Your task to perform on an android device: turn on bluetooth scan Image 0: 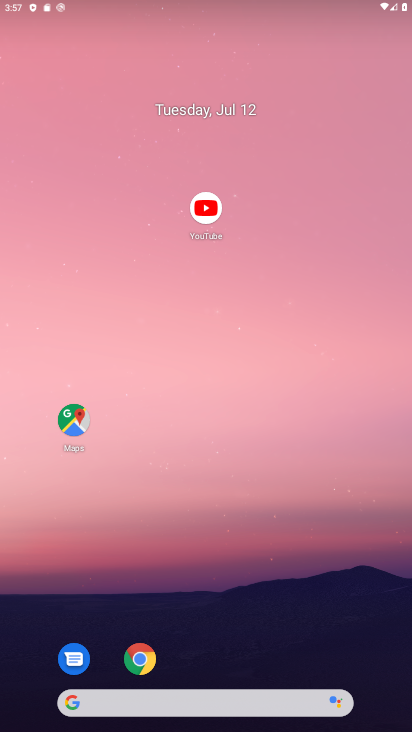
Step 0: drag from (271, 704) to (253, 33)
Your task to perform on an android device: turn on bluetooth scan Image 1: 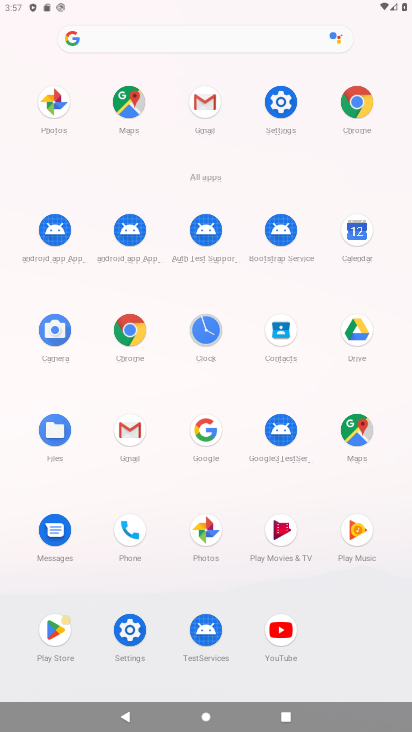
Step 1: click (282, 95)
Your task to perform on an android device: turn on bluetooth scan Image 2: 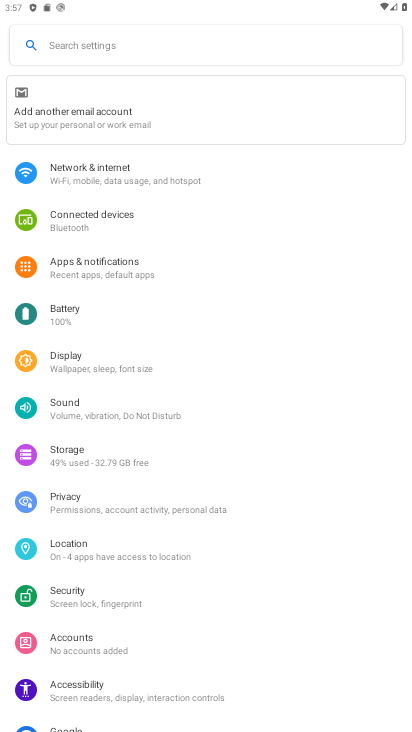
Step 2: click (88, 540)
Your task to perform on an android device: turn on bluetooth scan Image 3: 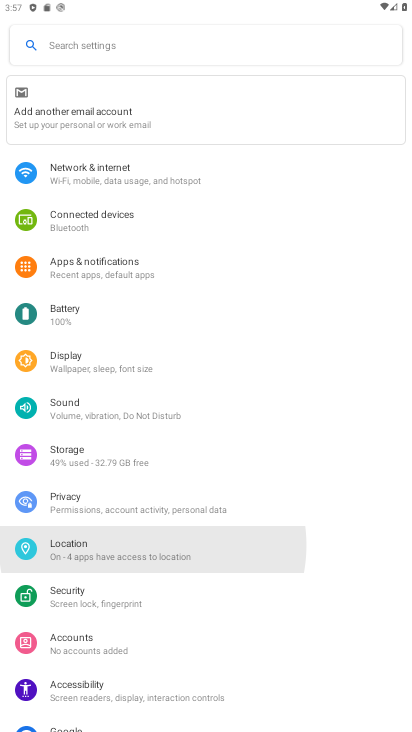
Step 3: click (88, 542)
Your task to perform on an android device: turn on bluetooth scan Image 4: 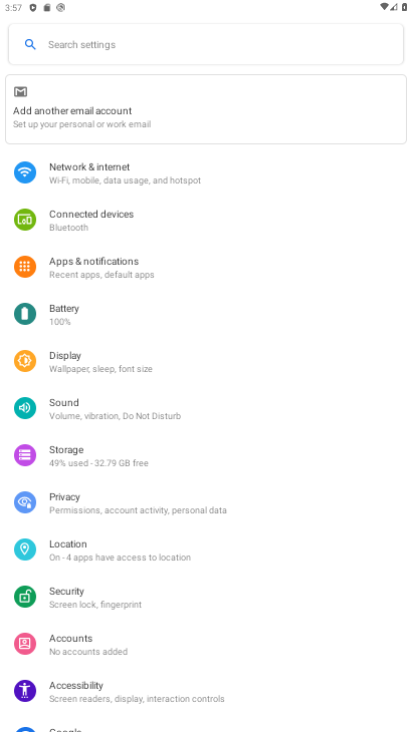
Step 4: click (88, 542)
Your task to perform on an android device: turn on bluetooth scan Image 5: 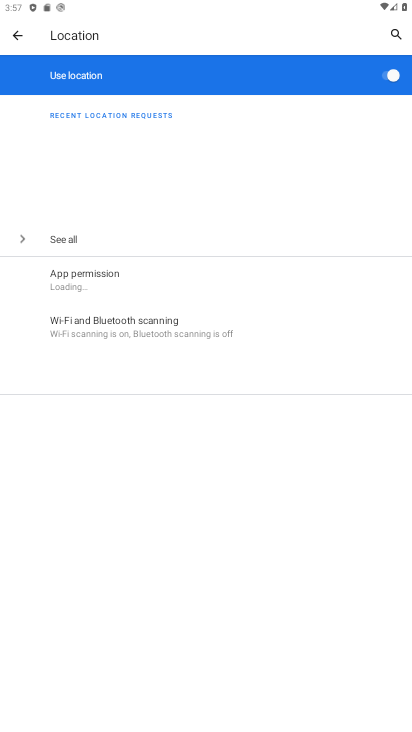
Step 5: click (89, 543)
Your task to perform on an android device: turn on bluetooth scan Image 6: 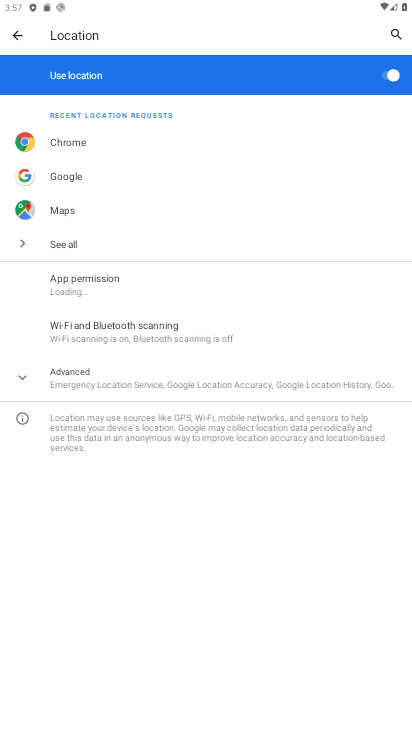
Step 6: click (91, 325)
Your task to perform on an android device: turn on bluetooth scan Image 7: 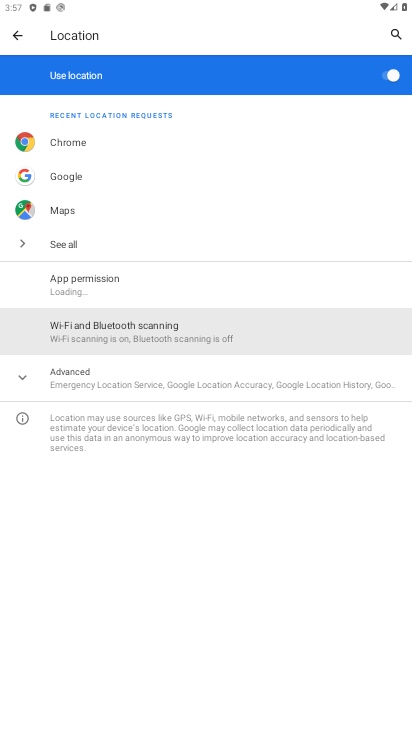
Step 7: click (91, 325)
Your task to perform on an android device: turn on bluetooth scan Image 8: 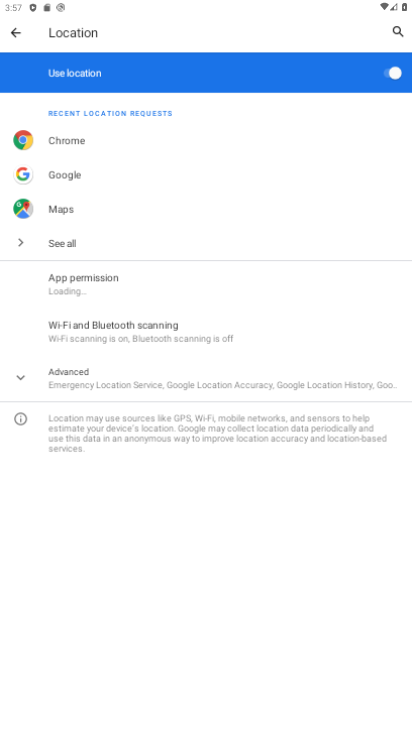
Step 8: click (92, 325)
Your task to perform on an android device: turn on bluetooth scan Image 9: 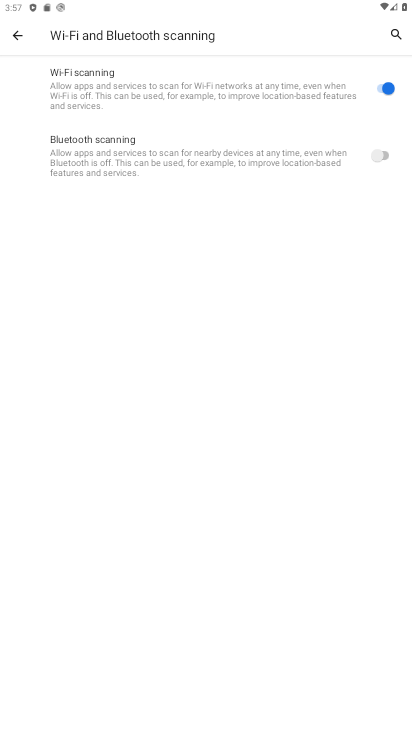
Step 9: click (382, 153)
Your task to perform on an android device: turn on bluetooth scan Image 10: 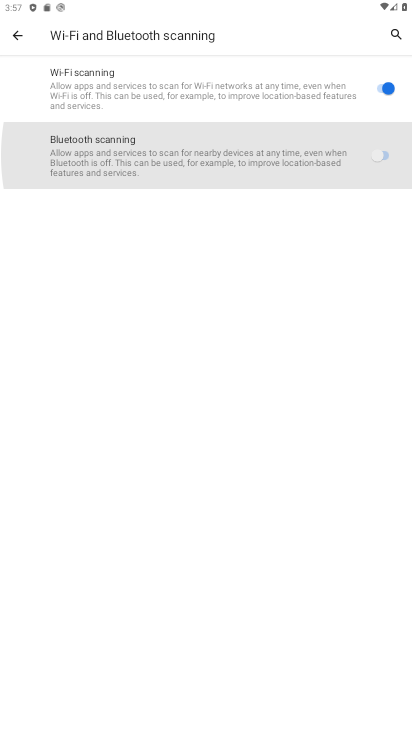
Step 10: click (381, 153)
Your task to perform on an android device: turn on bluetooth scan Image 11: 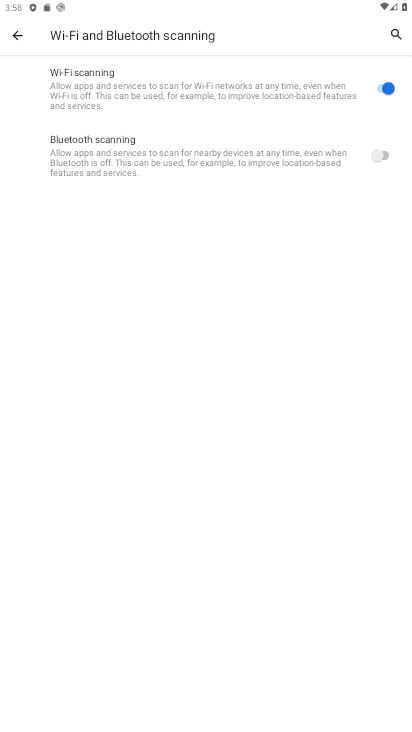
Step 11: click (384, 146)
Your task to perform on an android device: turn on bluetooth scan Image 12: 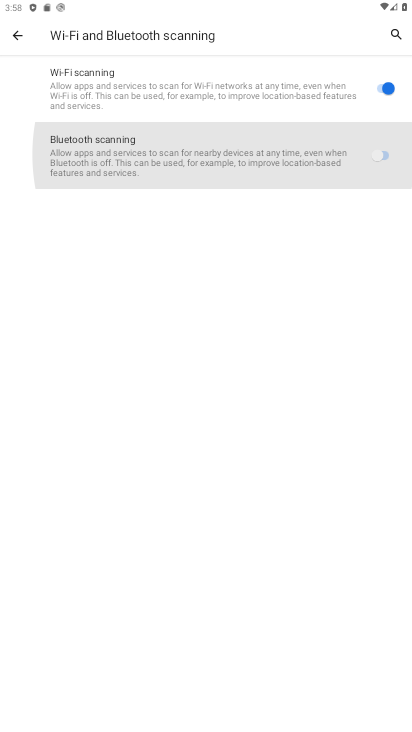
Step 12: click (384, 146)
Your task to perform on an android device: turn on bluetooth scan Image 13: 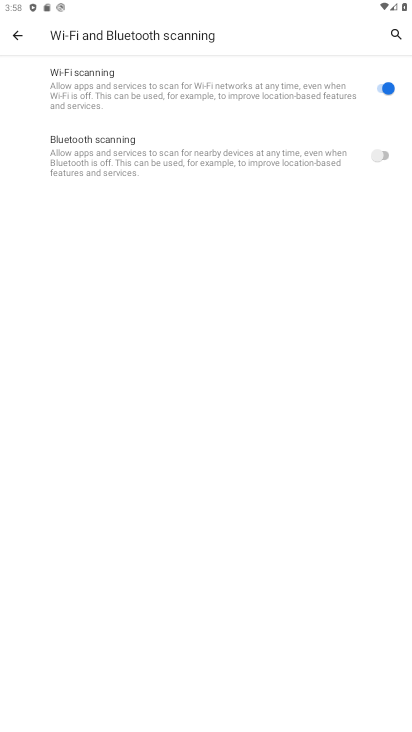
Step 13: click (378, 152)
Your task to perform on an android device: turn on bluetooth scan Image 14: 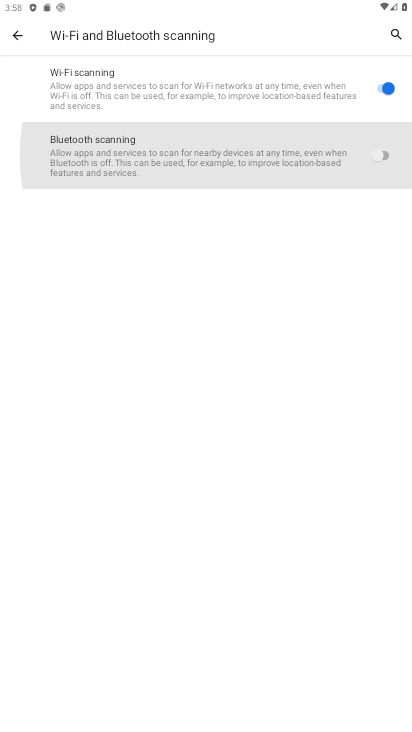
Step 14: click (377, 159)
Your task to perform on an android device: turn on bluetooth scan Image 15: 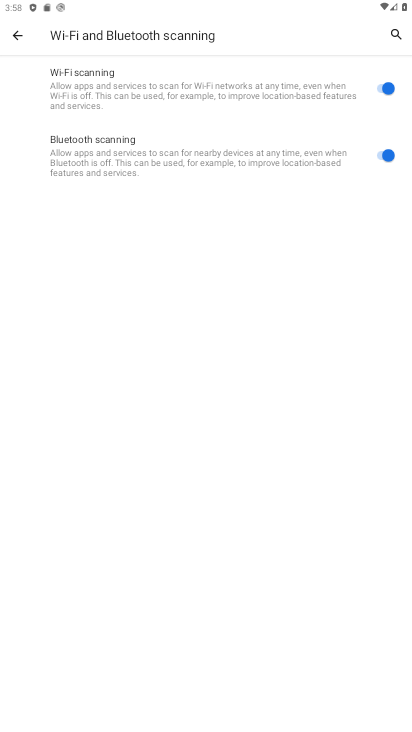
Step 15: task complete